Your task to perform on an android device: toggle pop-ups in chrome Image 0: 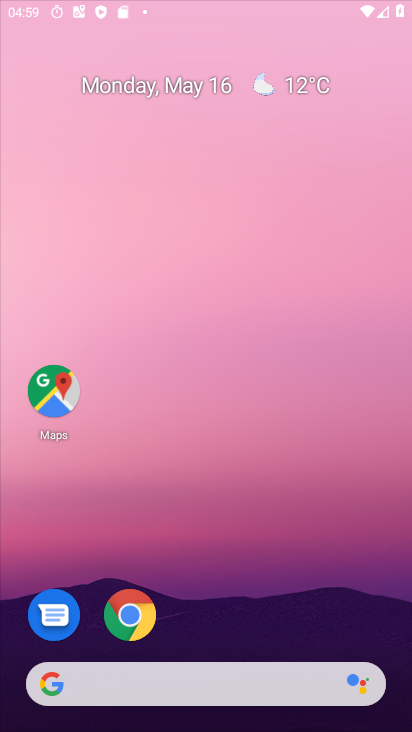
Step 0: drag from (361, 604) to (273, 68)
Your task to perform on an android device: toggle pop-ups in chrome Image 1: 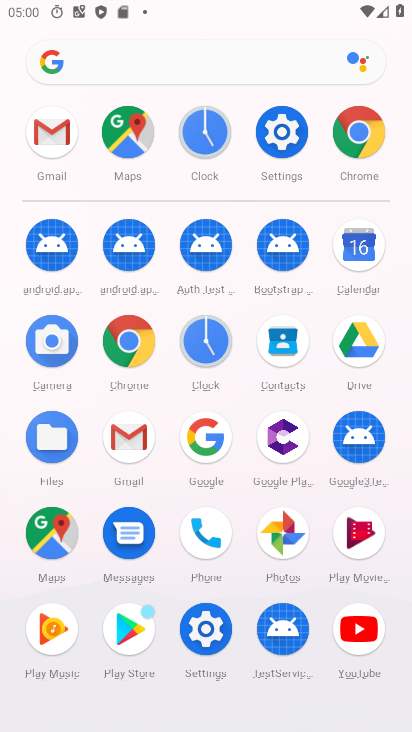
Step 1: click (339, 137)
Your task to perform on an android device: toggle pop-ups in chrome Image 2: 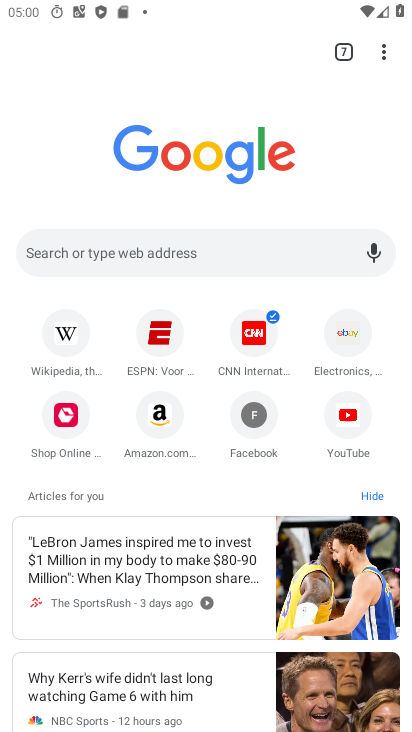
Step 2: drag from (382, 46) to (189, 497)
Your task to perform on an android device: toggle pop-ups in chrome Image 3: 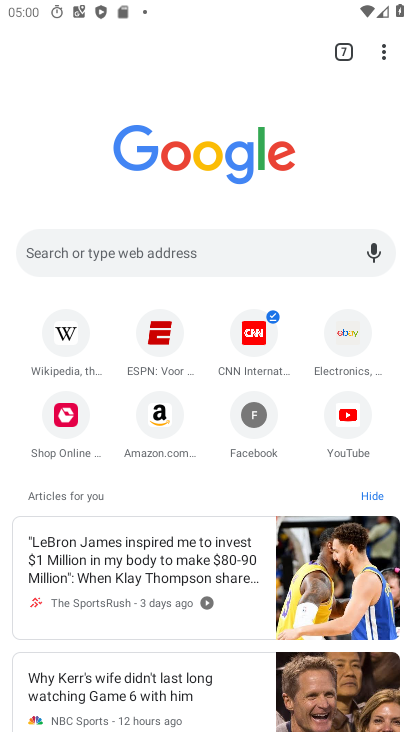
Step 3: click (188, 494)
Your task to perform on an android device: toggle pop-ups in chrome Image 4: 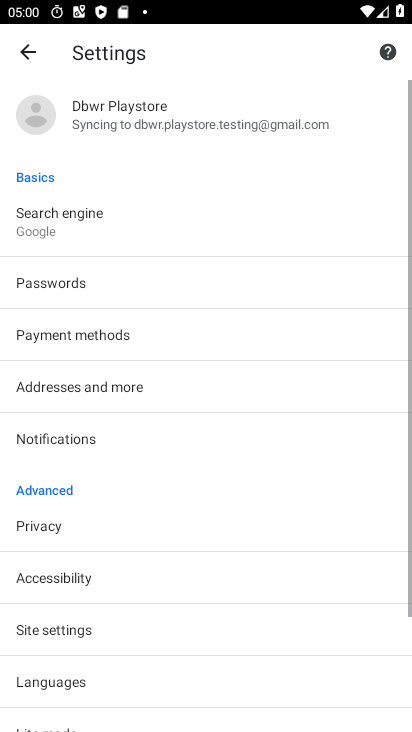
Step 4: drag from (110, 548) to (111, 89)
Your task to perform on an android device: toggle pop-ups in chrome Image 5: 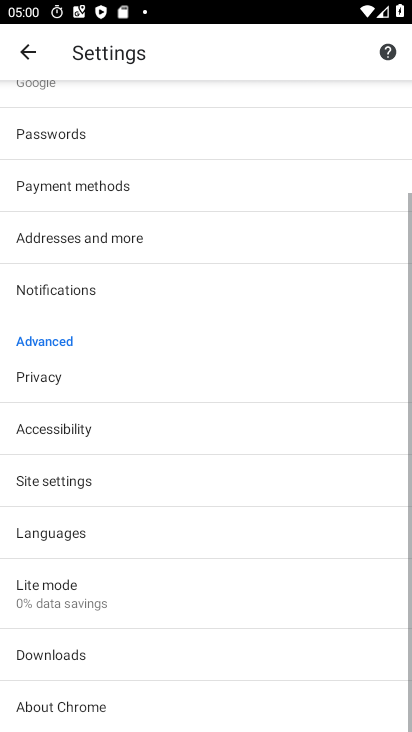
Step 5: drag from (108, 414) to (116, 156)
Your task to perform on an android device: toggle pop-ups in chrome Image 6: 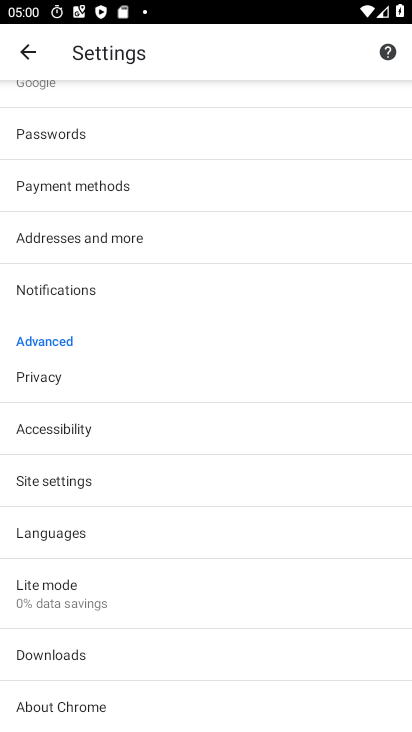
Step 6: drag from (56, 408) to (83, 195)
Your task to perform on an android device: toggle pop-ups in chrome Image 7: 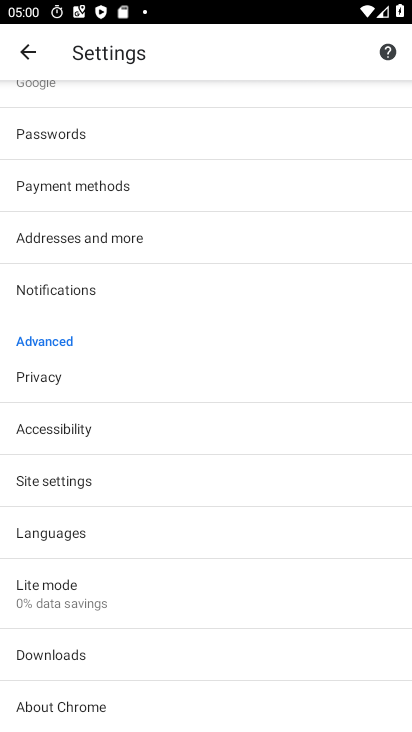
Step 7: drag from (65, 542) to (0, 201)
Your task to perform on an android device: toggle pop-ups in chrome Image 8: 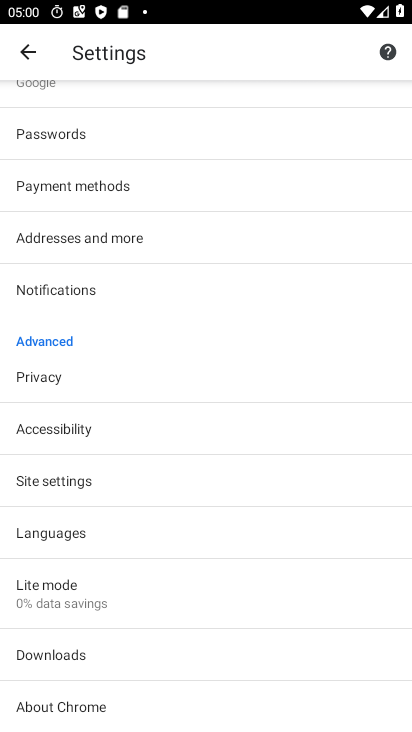
Step 8: drag from (28, 567) to (28, 294)
Your task to perform on an android device: toggle pop-ups in chrome Image 9: 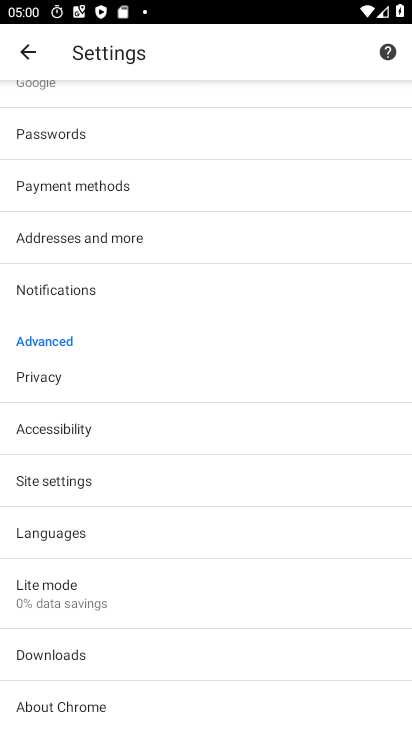
Step 9: drag from (67, 423) to (122, 248)
Your task to perform on an android device: toggle pop-ups in chrome Image 10: 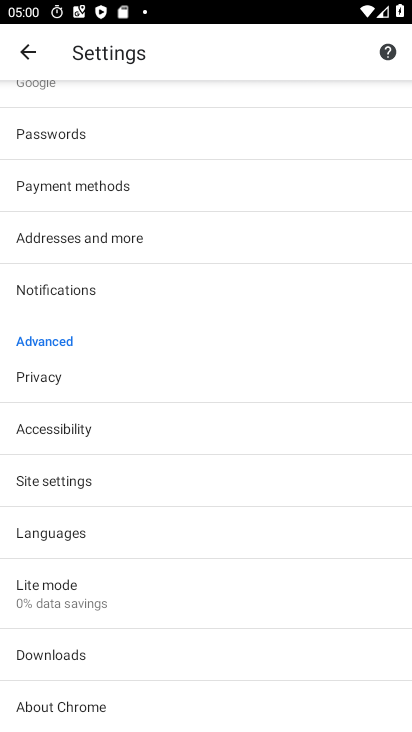
Step 10: drag from (71, 447) to (119, 191)
Your task to perform on an android device: toggle pop-ups in chrome Image 11: 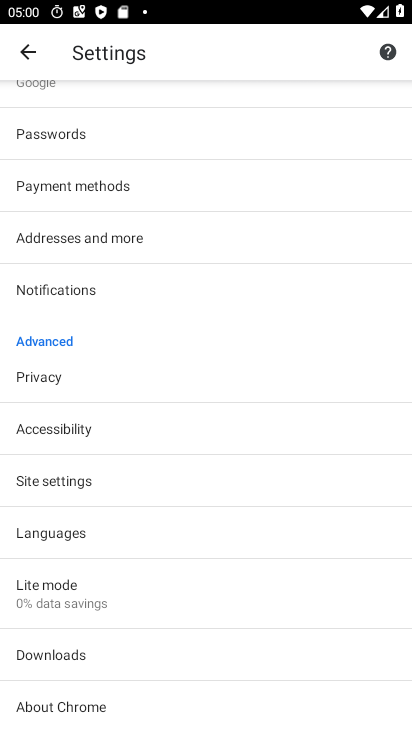
Step 11: click (52, 475)
Your task to perform on an android device: toggle pop-ups in chrome Image 12: 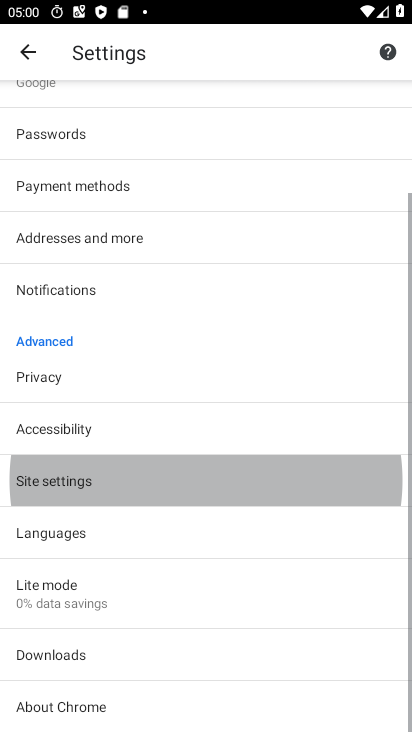
Step 12: click (52, 475)
Your task to perform on an android device: toggle pop-ups in chrome Image 13: 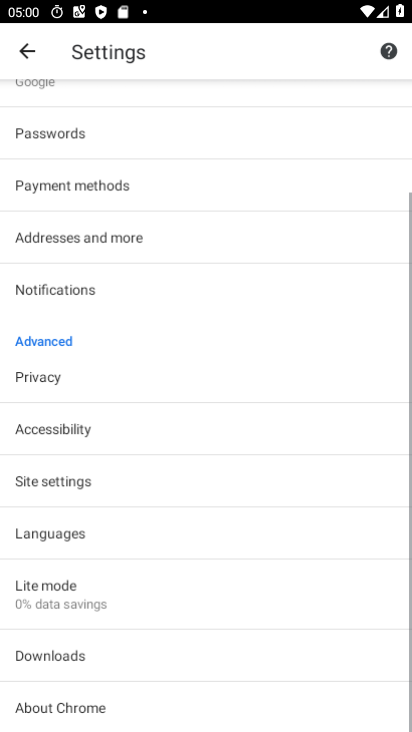
Step 13: click (52, 475)
Your task to perform on an android device: toggle pop-ups in chrome Image 14: 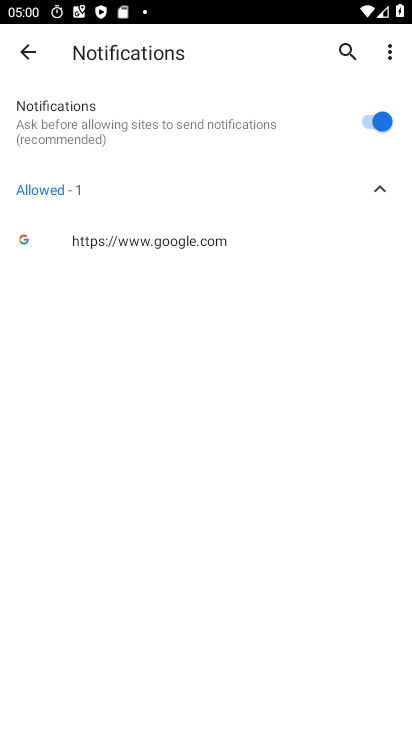
Step 14: click (27, 54)
Your task to perform on an android device: toggle pop-ups in chrome Image 15: 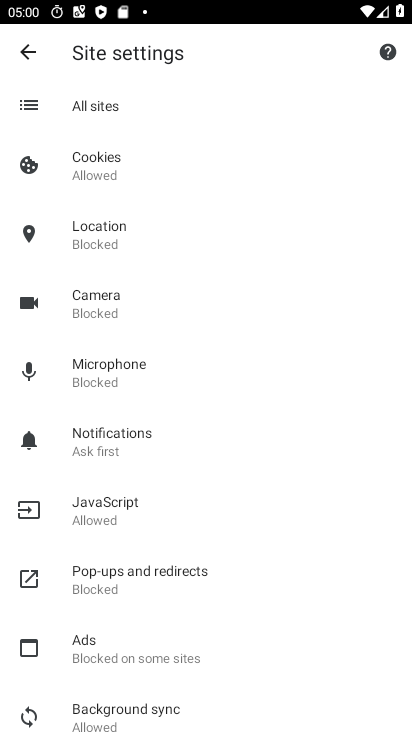
Step 15: click (98, 569)
Your task to perform on an android device: toggle pop-ups in chrome Image 16: 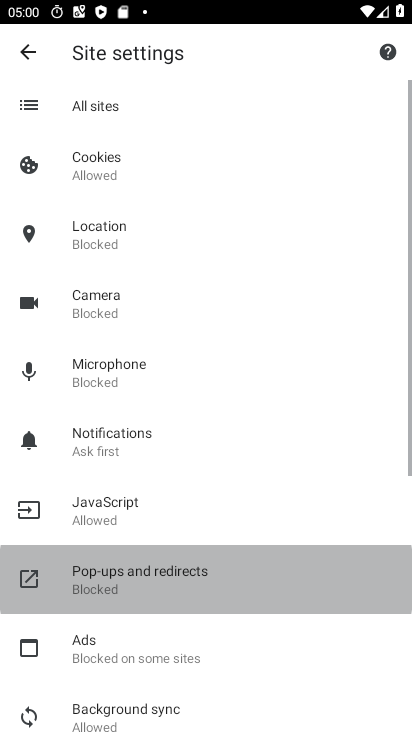
Step 16: click (99, 568)
Your task to perform on an android device: toggle pop-ups in chrome Image 17: 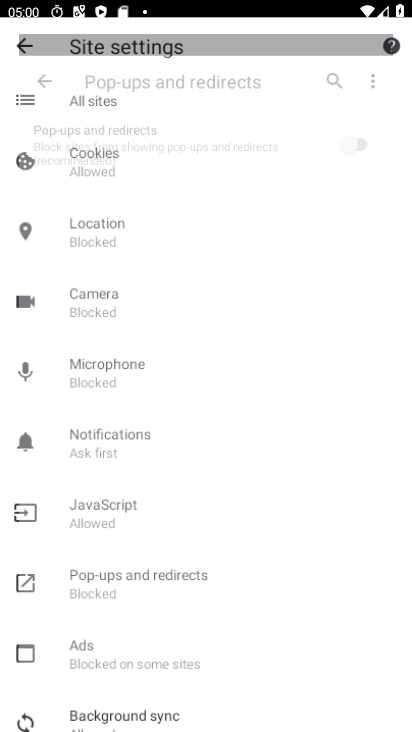
Step 17: click (99, 568)
Your task to perform on an android device: toggle pop-ups in chrome Image 18: 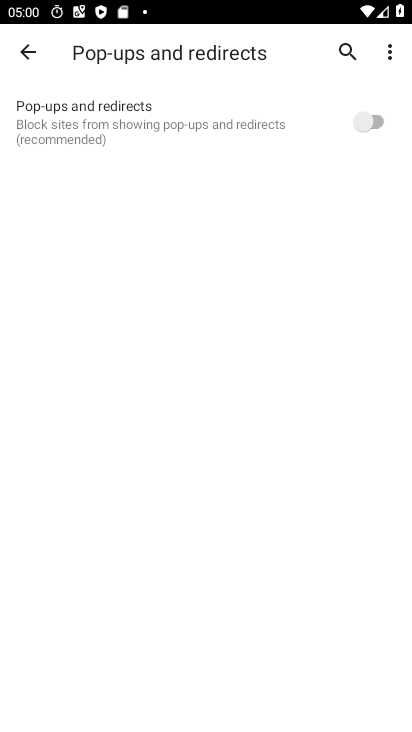
Step 18: click (102, 569)
Your task to perform on an android device: toggle pop-ups in chrome Image 19: 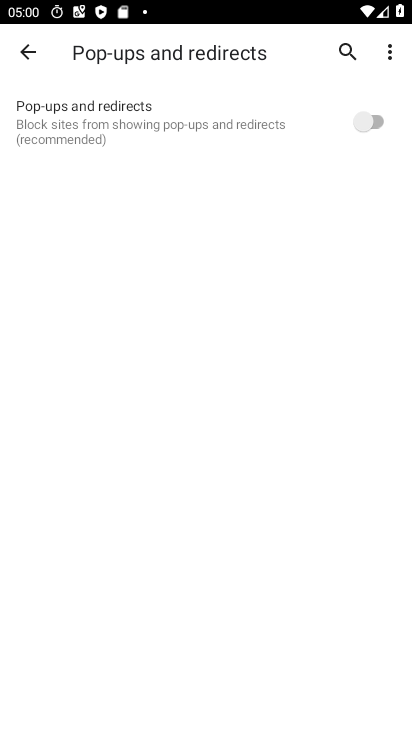
Step 19: click (360, 126)
Your task to perform on an android device: toggle pop-ups in chrome Image 20: 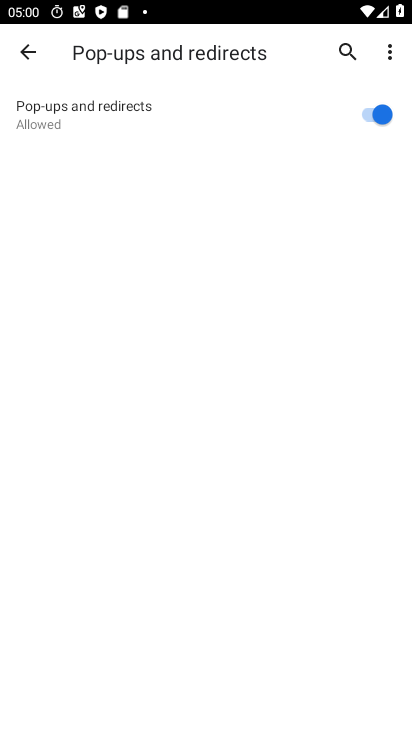
Step 20: click (375, 111)
Your task to perform on an android device: toggle pop-ups in chrome Image 21: 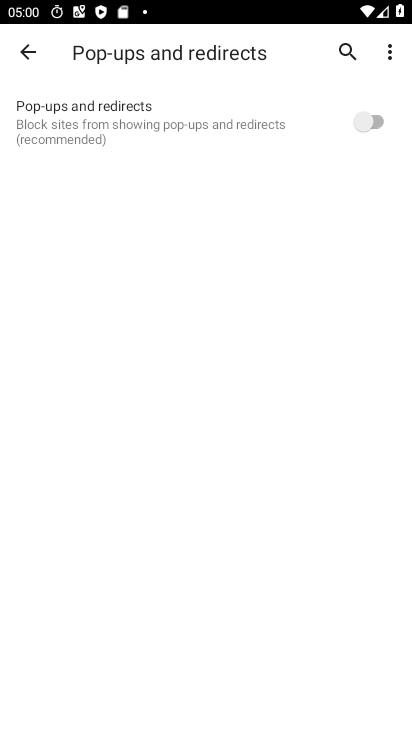
Step 21: click (363, 114)
Your task to perform on an android device: toggle pop-ups in chrome Image 22: 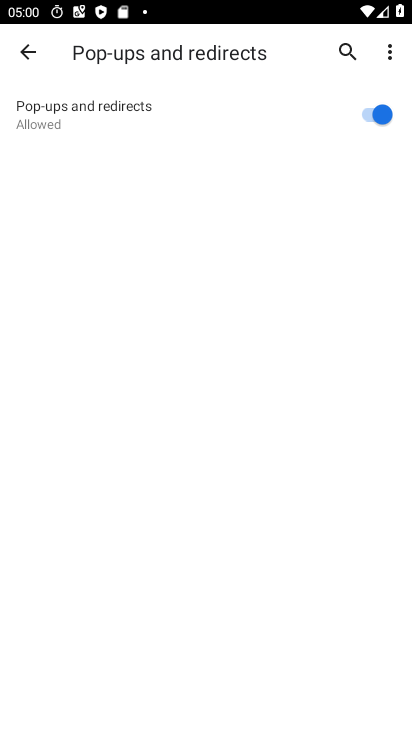
Step 22: task complete